Your task to perform on an android device: turn on airplane mode Image 0: 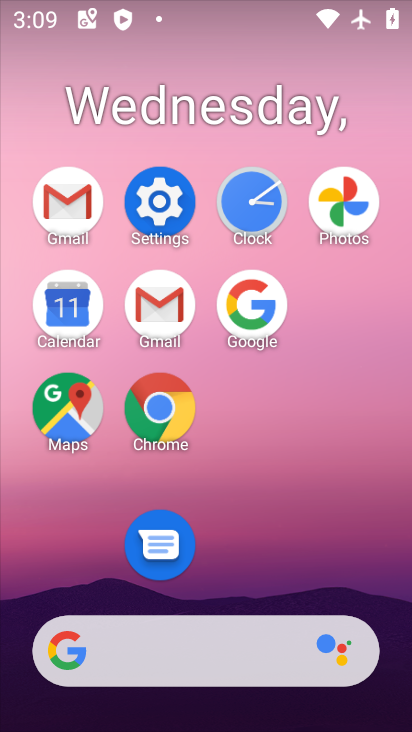
Step 0: click (170, 218)
Your task to perform on an android device: turn on airplane mode Image 1: 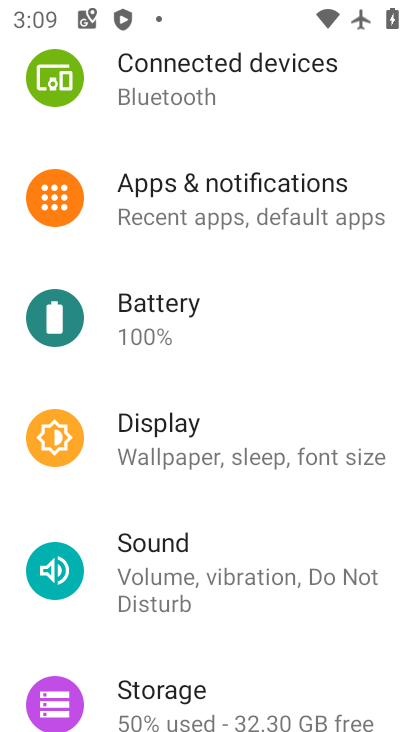
Step 1: drag from (337, 189) to (252, 717)
Your task to perform on an android device: turn on airplane mode Image 2: 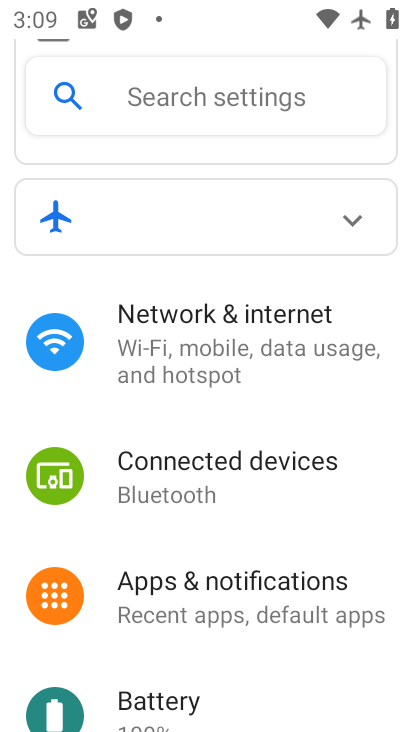
Step 2: click (298, 300)
Your task to perform on an android device: turn on airplane mode Image 3: 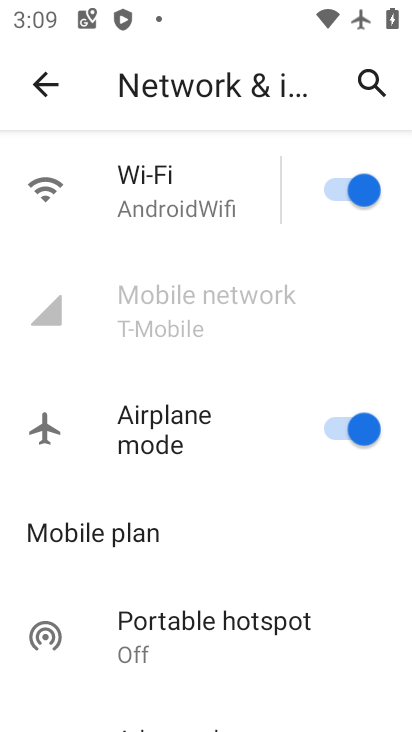
Step 3: task complete